Your task to perform on an android device: What's on my calendar today? Image 0: 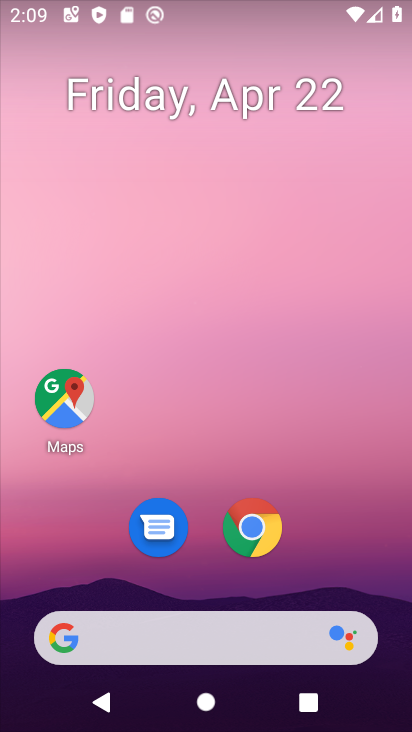
Step 0: drag from (324, 519) to (318, 83)
Your task to perform on an android device: What's on my calendar today? Image 1: 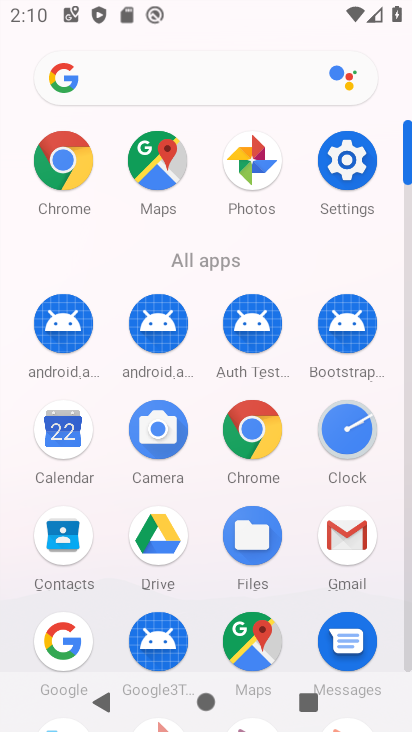
Step 1: drag from (298, 296) to (325, 9)
Your task to perform on an android device: What's on my calendar today? Image 2: 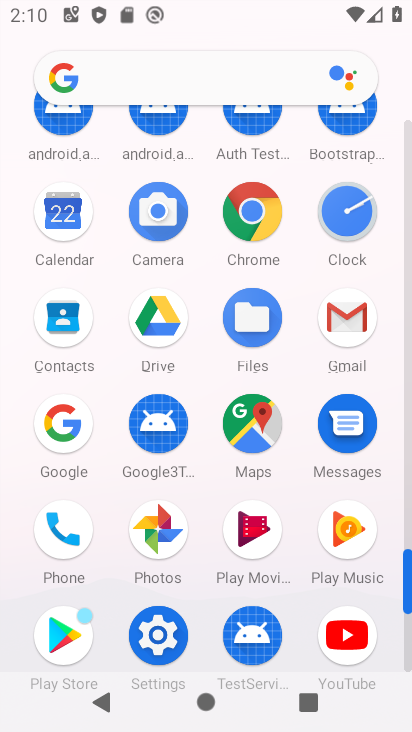
Step 2: click (65, 212)
Your task to perform on an android device: What's on my calendar today? Image 3: 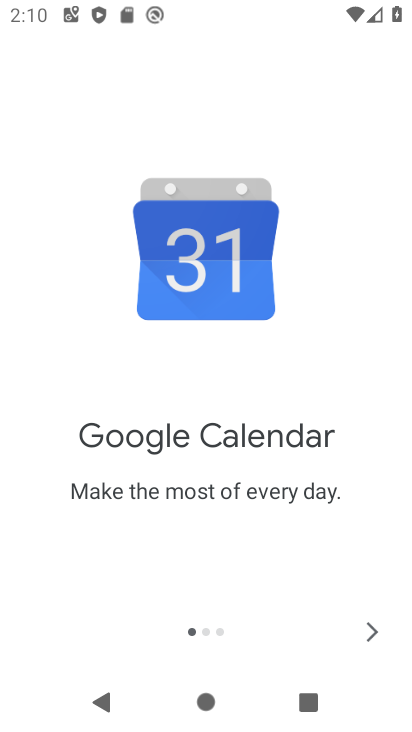
Step 3: click (370, 629)
Your task to perform on an android device: What's on my calendar today? Image 4: 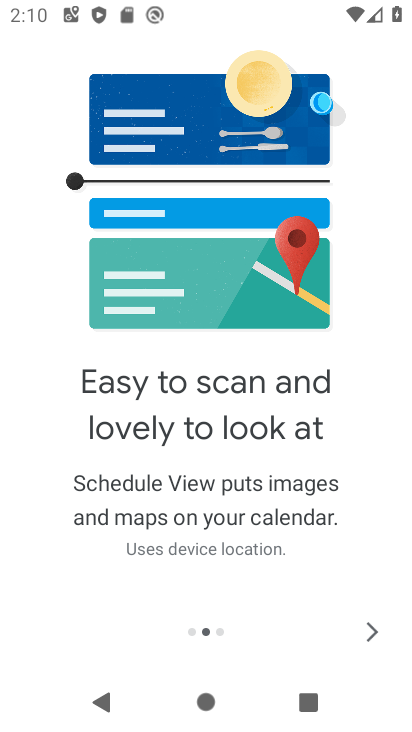
Step 4: click (365, 627)
Your task to perform on an android device: What's on my calendar today? Image 5: 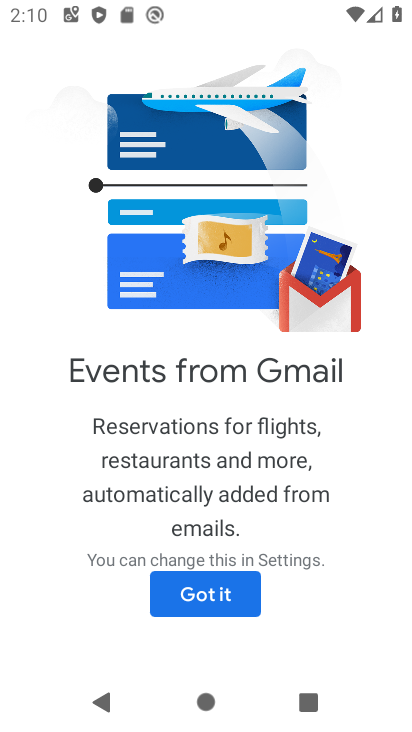
Step 5: click (213, 592)
Your task to perform on an android device: What's on my calendar today? Image 6: 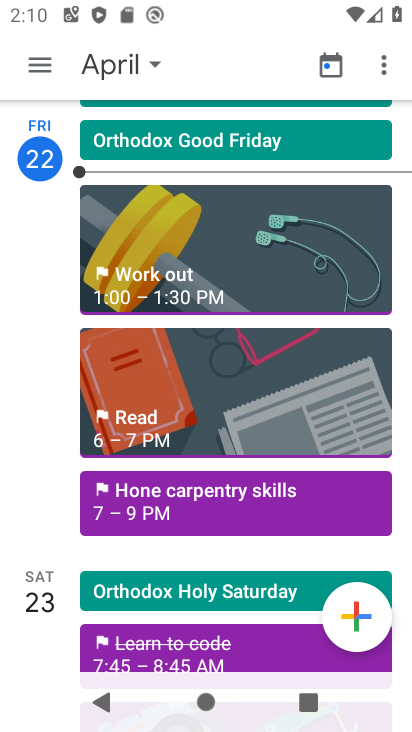
Step 6: click (140, 63)
Your task to perform on an android device: What's on my calendar today? Image 7: 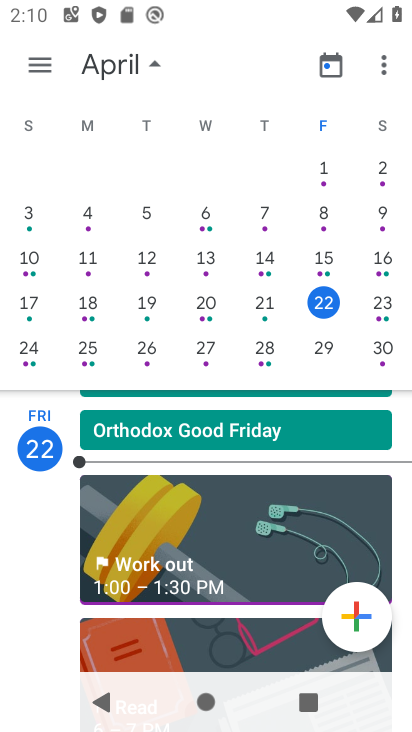
Step 7: click (260, 298)
Your task to perform on an android device: What's on my calendar today? Image 8: 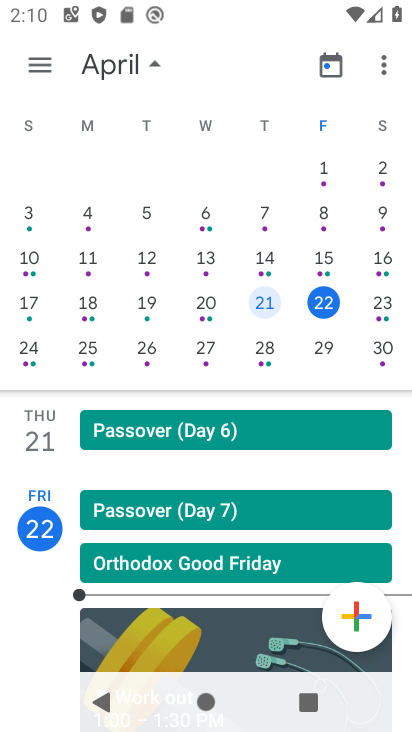
Step 8: click (318, 297)
Your task to perform on an android device: What's on my calendar today? Image 9: 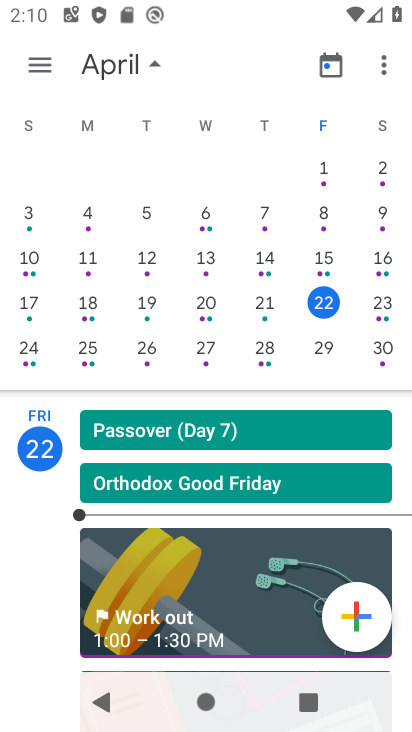
Step 9: task complete